Your task to perform on an android device: Open the Play Movies app and select the watchlist tab. Image 0: 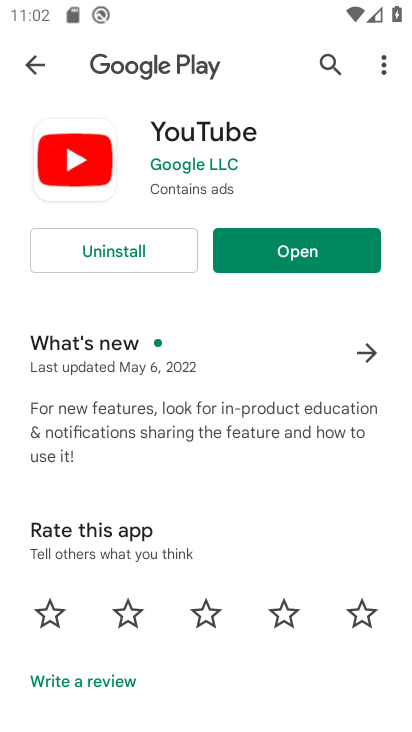
Step 0: press home button
Your task to perform on an android device: Open the Play Movies app and select the watchlist tab. Image 1: 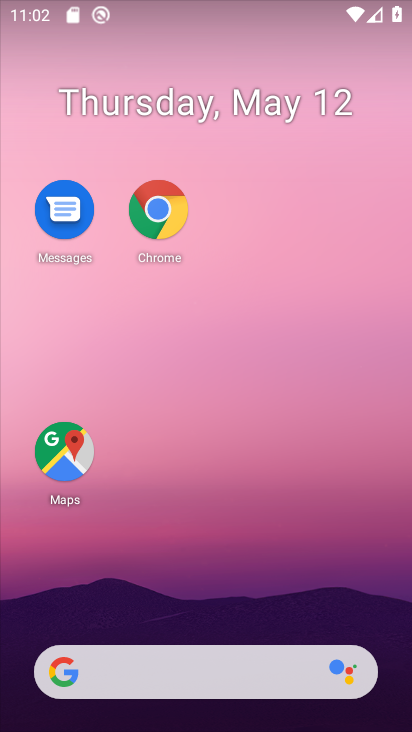
Step 1: drag from (242, 310) to (252, 176)
Your task to perform on an android device: Open the Play Movies app and select the watchlist tab. Image 2: 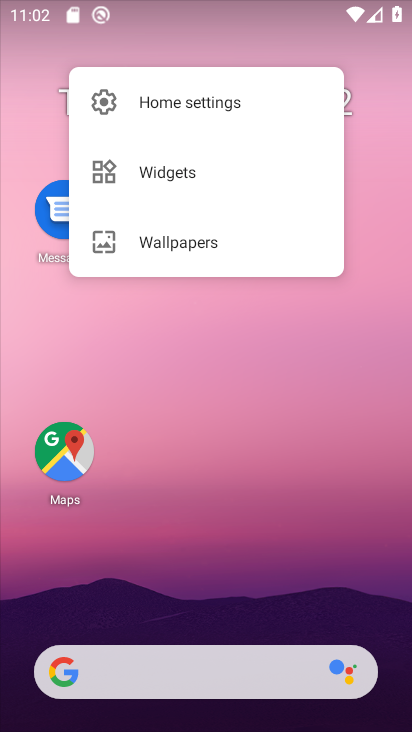
Step 2: click (218, 553)
Your task to perform on an android device: Open the Play Movies app and select the watchlist tab. Image 3: 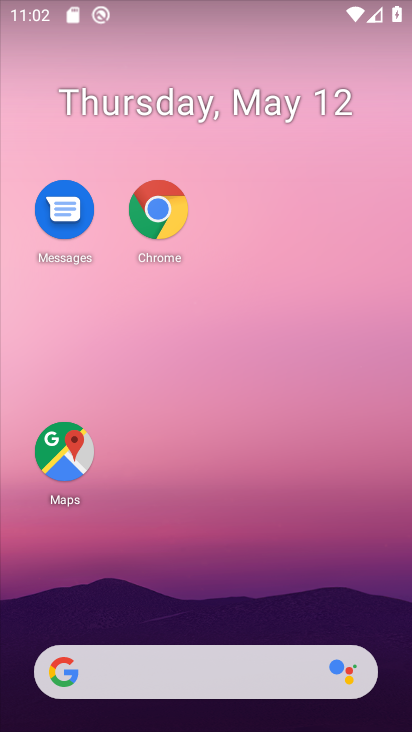
Step 3: drag from (214, 595) to (211, 62)
Your task to perform on an android device: Open the Play Movies app and select the watchlist tab. Image 4: 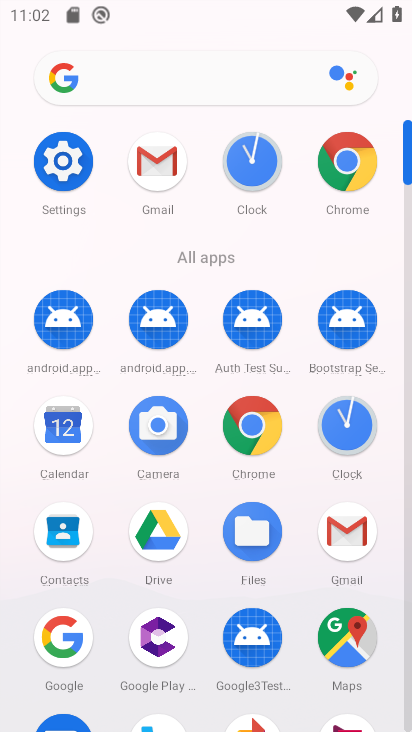
Step 4: drag from (280, 479) to (277, 253)
Your task to perform on an android device: Open the Play Movies app and select the watchlist tab. Image 5: 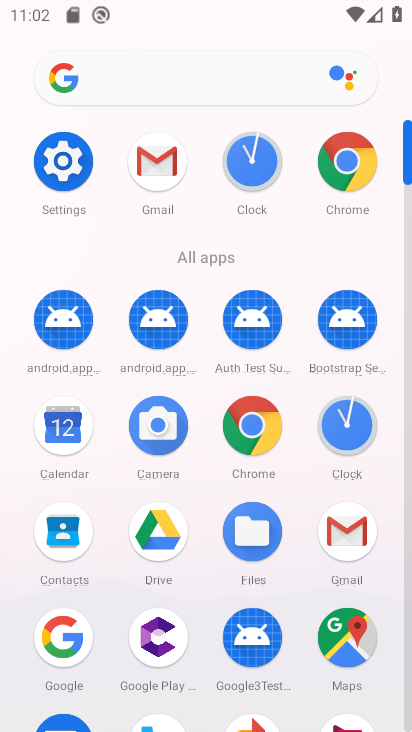
Step 5: drag from (203, 679) to (251, 349)
Your task to perform on an android device: Open the Play Movies app and select the watchlist tab. Image 6: 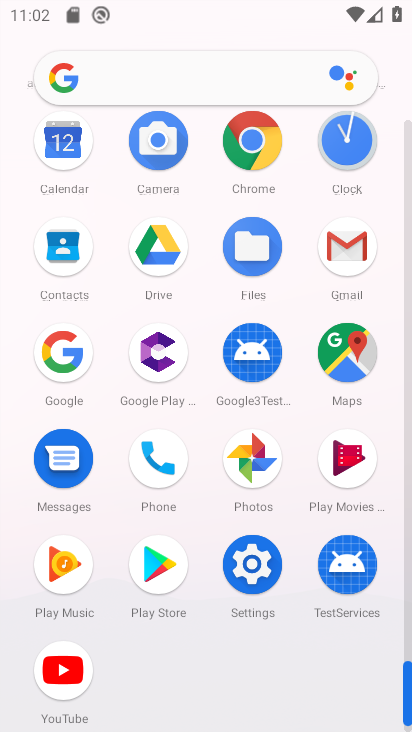
Step 6: click (347, 489)
Your task to perform on an android device: Open the Play Movies app and select the watchlist tab. Image 7: 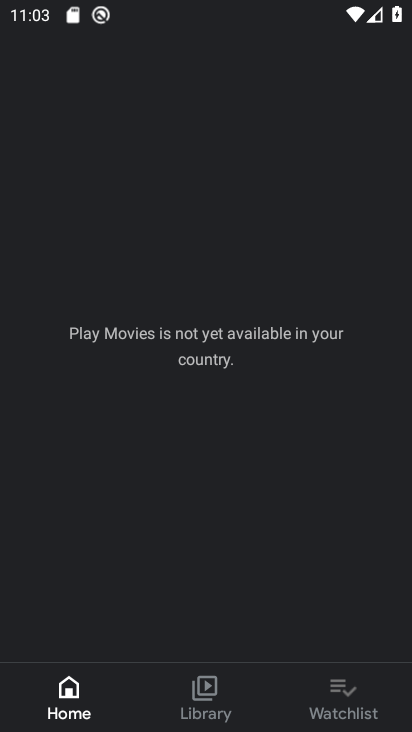
Step 7: click (335, 700)
Your task to perform on an android device: Open the Play Movies app and select the watchlist tab. Image 8: 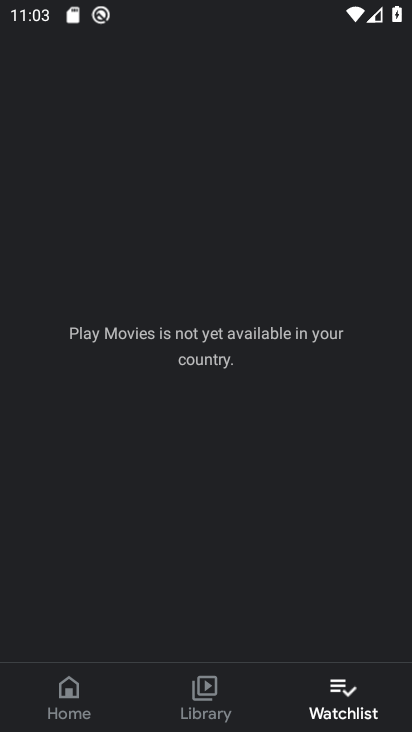
Step 8: task complete